Your task to perform on an android device: What is the recent news? Image 0: 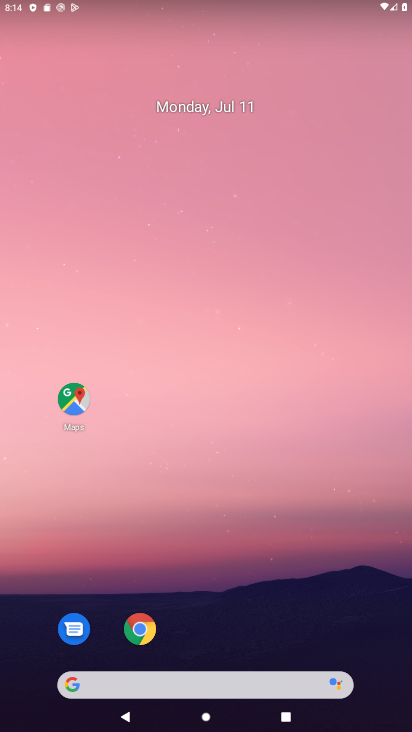
Step 0: drag from (213, 624) to (229, 212)
Your task to perform on an android device: What is the recent news? Image 1: 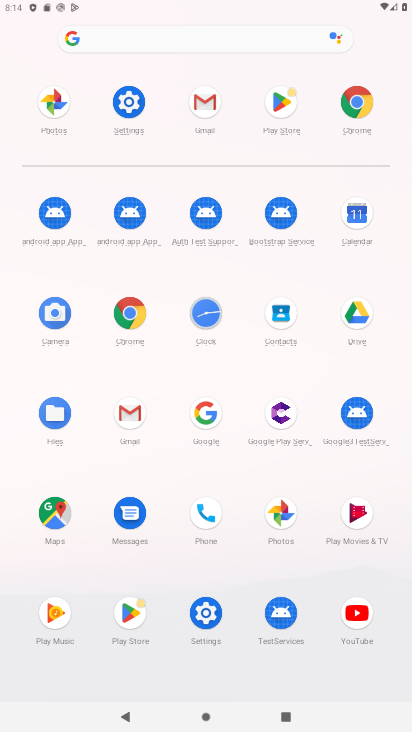
Step 1: click (201, 397)
Your task to perform on an android device: What is the recent news? Image 2: 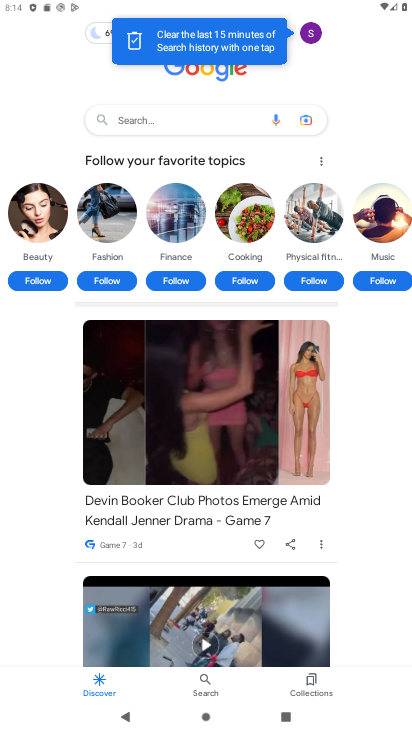
Step 2: task complete